Your task to perform on an android device: toggle priority inbox in the gmail app Image 0: 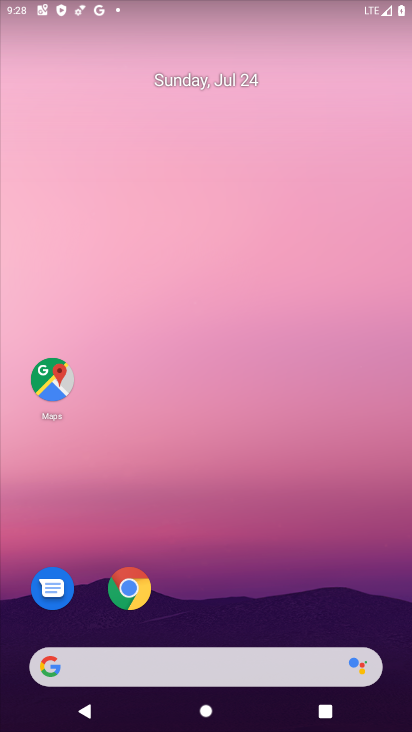
Step 0: drag from (200, 660) to (174, 265)
Your task to perform on an android device: toggle priority inbox in the gmail app Image 1: 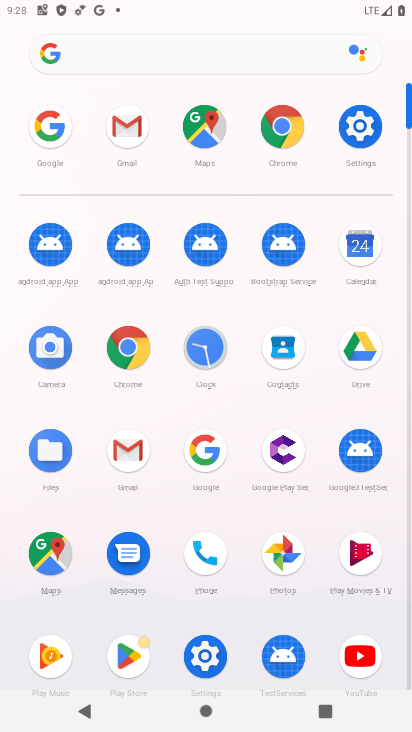
Step 1: click (128, 443)
Your task to perform on an android device: toggle priority inbox in the gmail app Image 2: 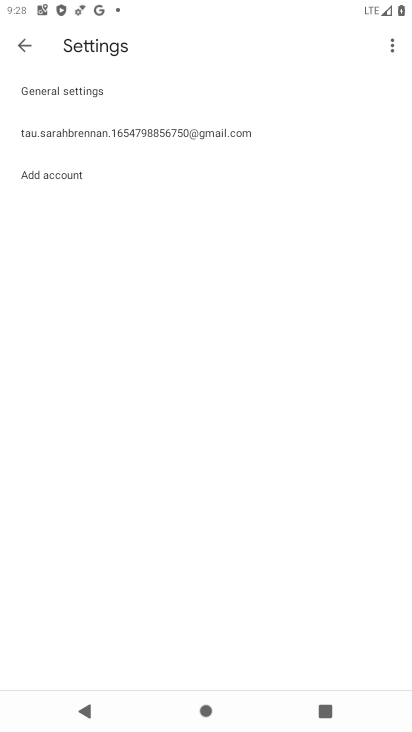
Step 2: click (197, 125)
Your task to perform on an android device: toggle priority inbox in the gmail app Image 3: 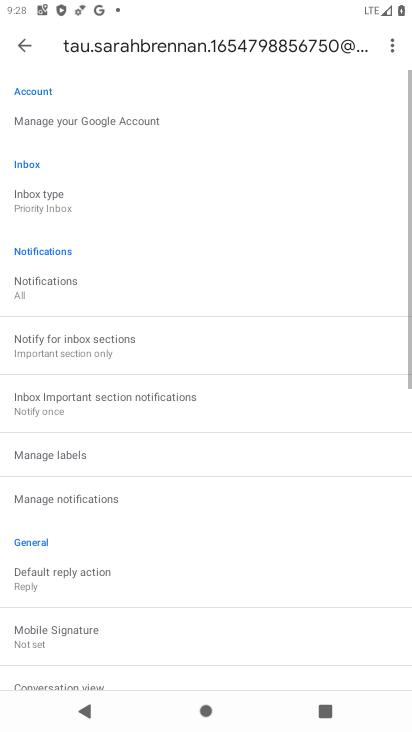
Step 3: click (84, 201)
Your task to perform on an android device: toggle priority inbox in the gmail app Image 4: 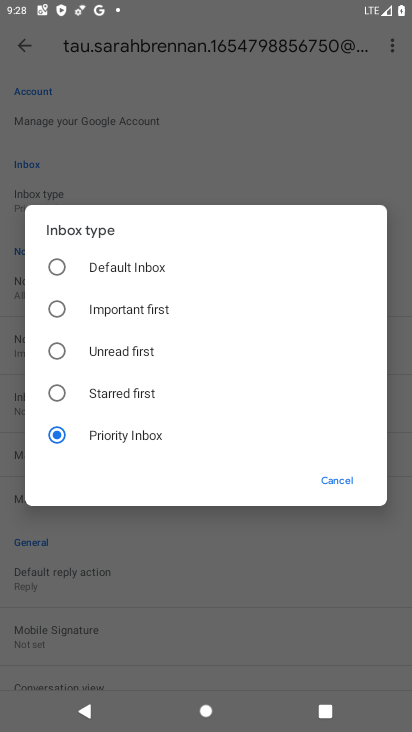
Step 4: click (94, 269)
Your task to perform on an android device: toggle priority inbox in the gmail app Image 5: 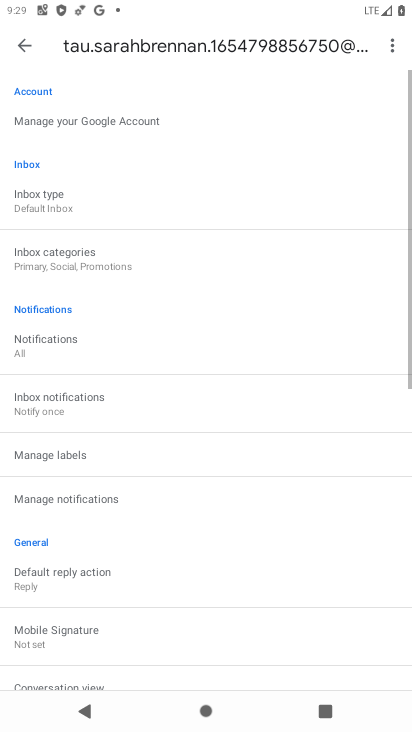
Step 5: task complete